Your task to perform on an android device: Search for flights from Chicago to London Image 0: 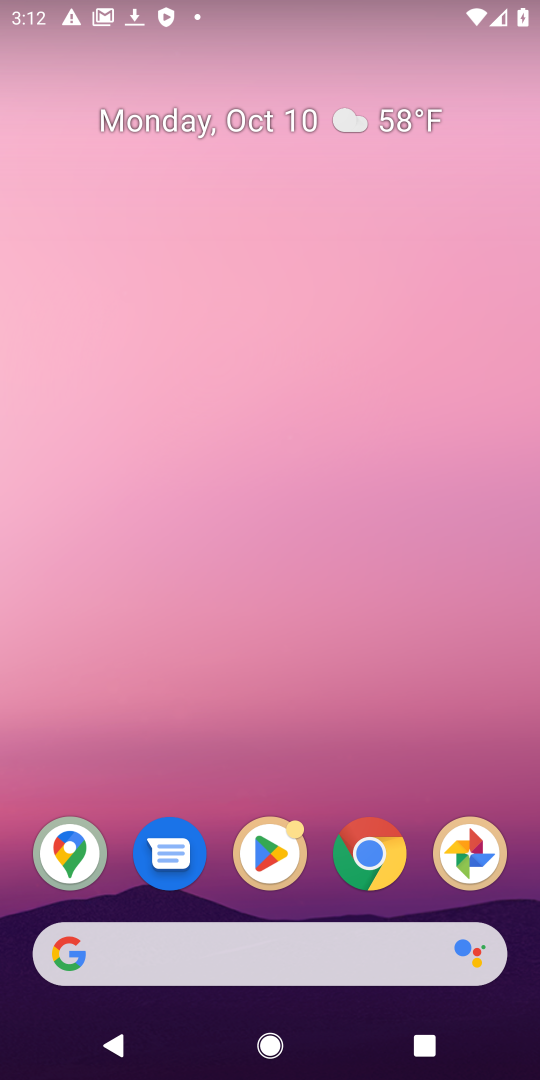
Step 0: click (365, 855)
Your task to perform on an android device: Search for flights from Chicago to London Image 1: 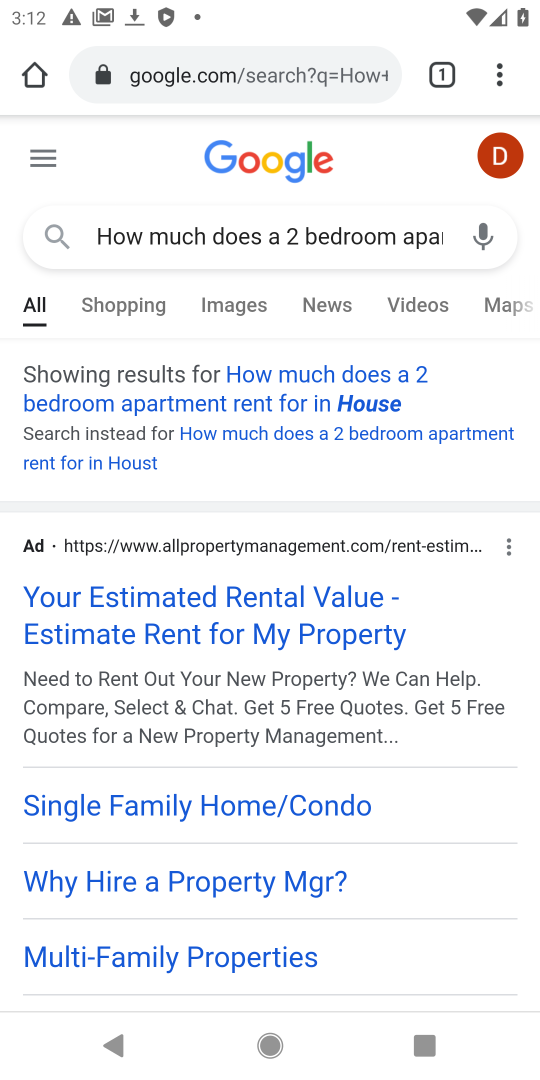
Step 1: click (169, 64)
Your task to perform on an android device: Search for flights from Chicago to London Image 2: 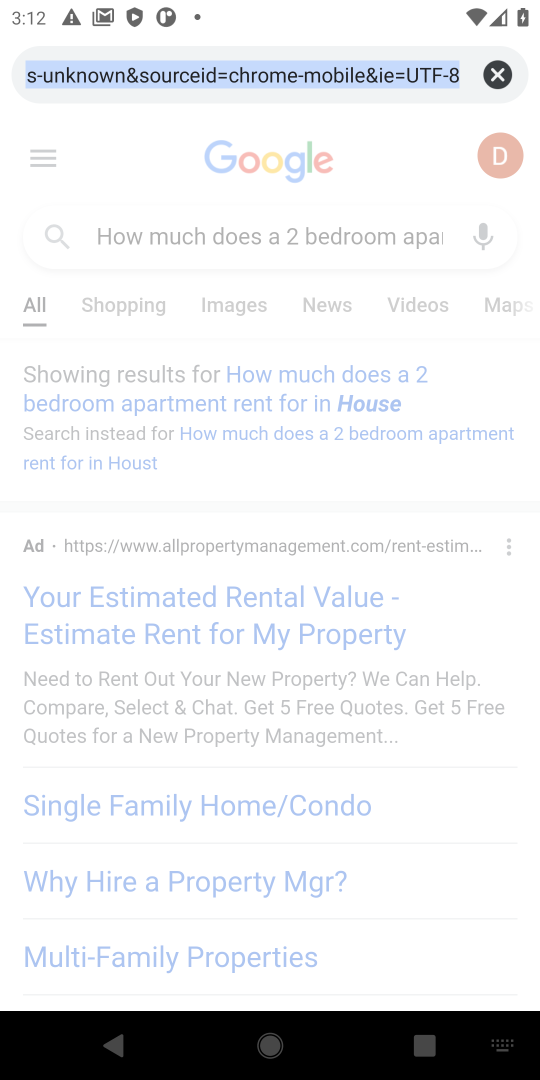
Step 2: type "flights from Chicago to London"
Your task to perform on an android device: Search for flights from Chicago to London Image 3: 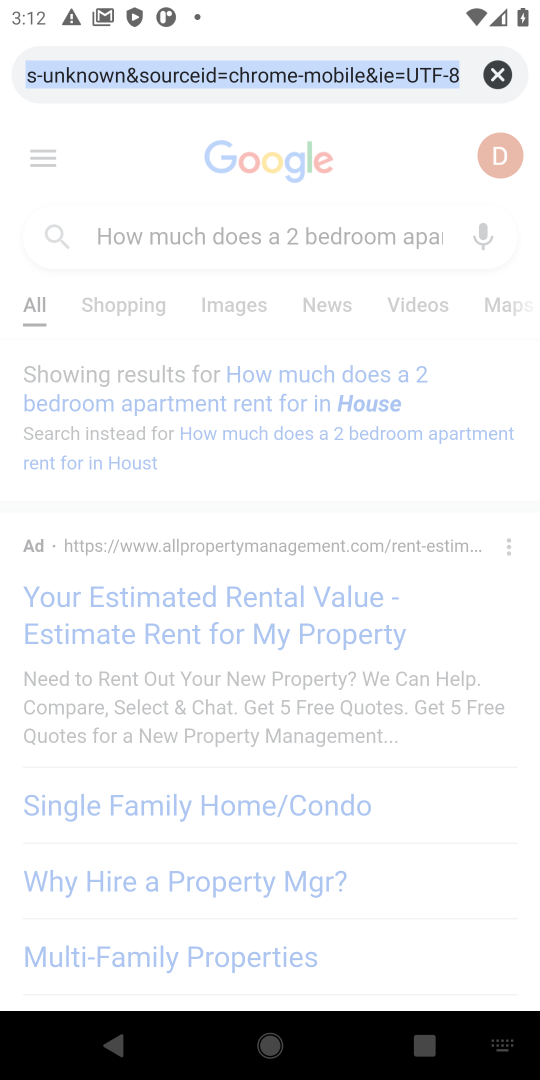
Step 3: click (231, 76)
Your task to perform on an android device: Search for flights from Chicago to London Image 4: 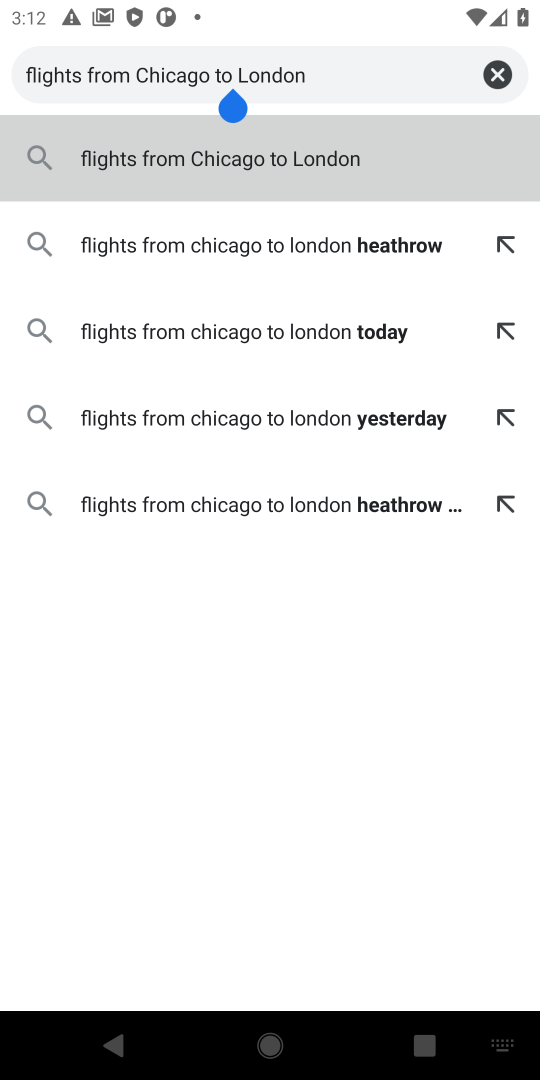
Step 4: click (257, 167)
Your task to perform on an android device: Search for flights from Chicago to London Image 5: 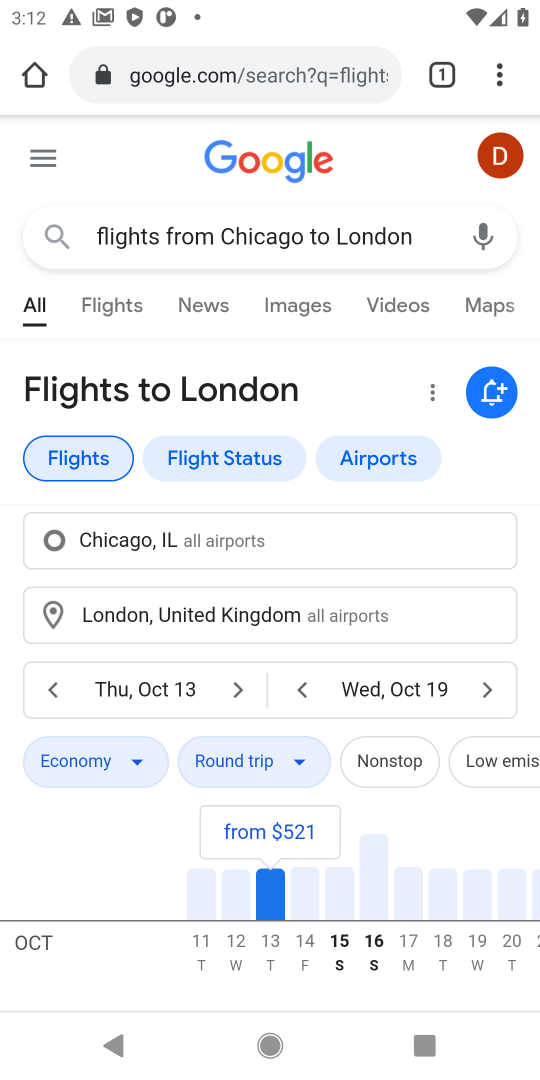
Step 5: drag from (411, 954) to (400, 493)
Your task to perform on an android device: Search for flights from Chicago to London Image 6: 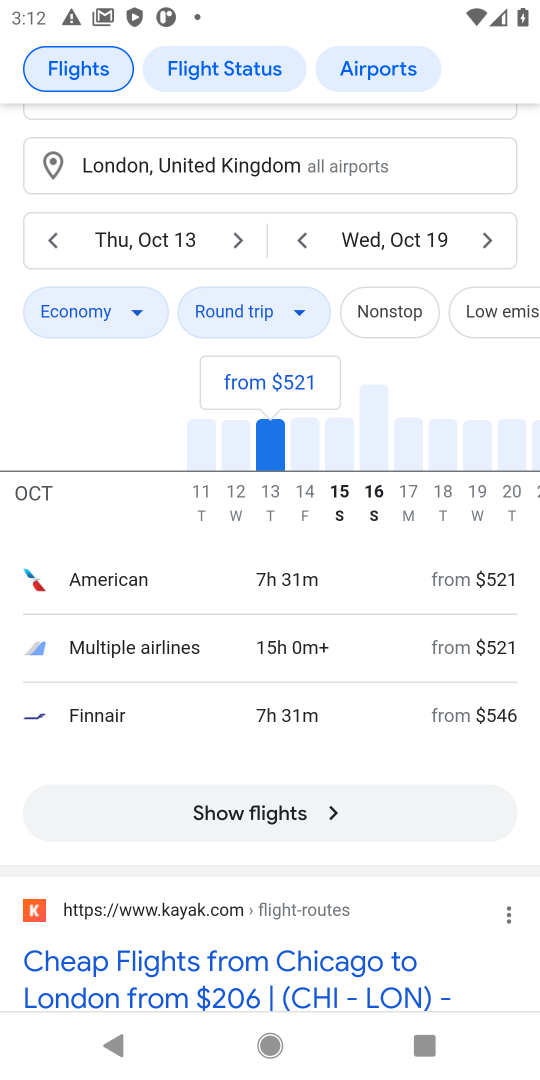
Step 6: click (400, 493)
Your task to perform on an android device: Search for flights from Chicago to London Image 7: 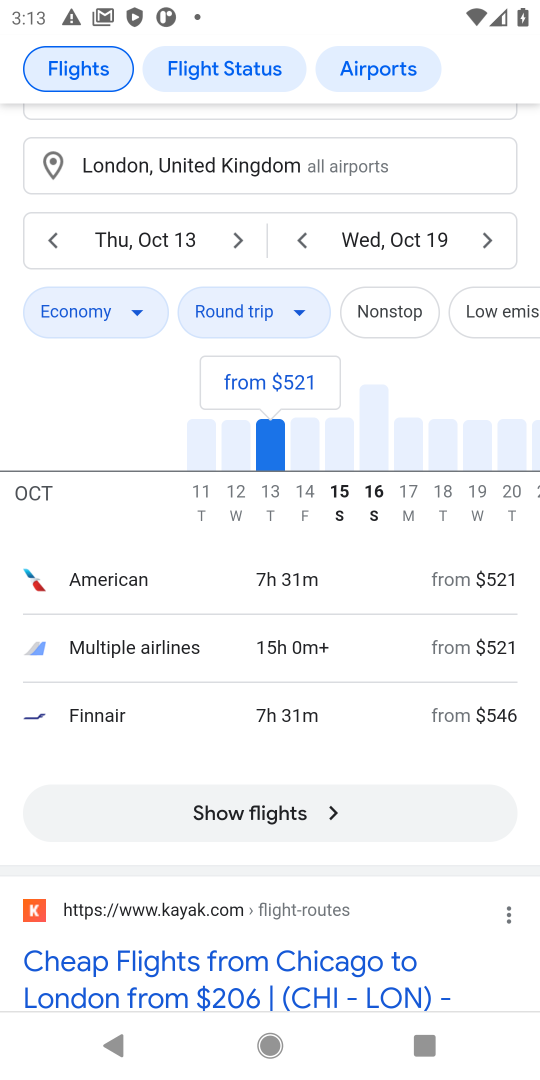
Step 7: task complete